Your task to perform on an android device: Open Yahoo.com Image 0: 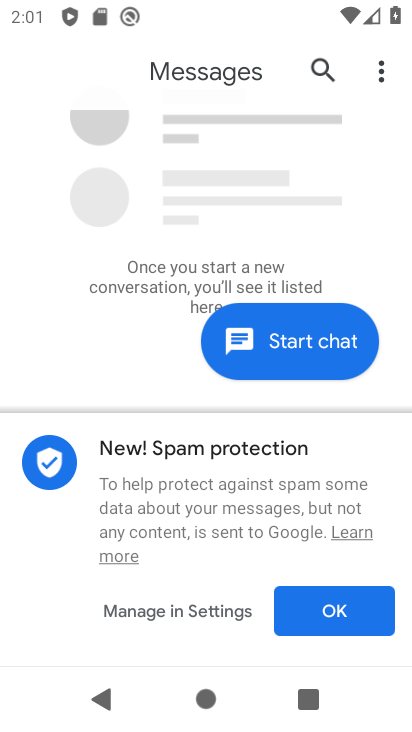
Step 0: press home button
Your task to perform on an android device: Open Yahoo.com Image 1: 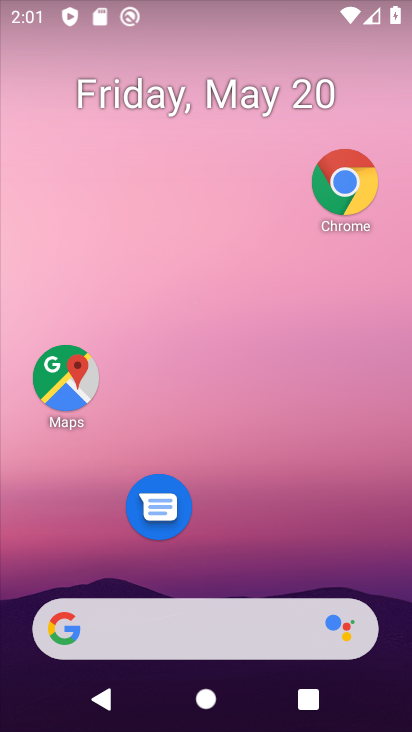
Step 1: click (340, 186)
Your task to perform on an android device: Open Yahoo.com Image 2: 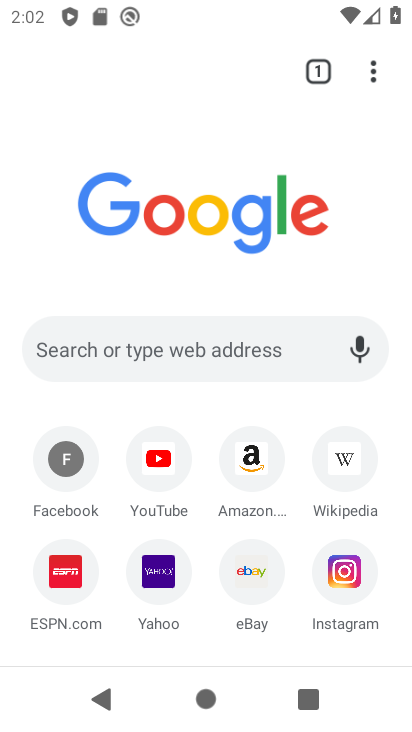
Step 2: click (169, 574)
Your task to perform on an android device: Open Yahoo.com Image 3: 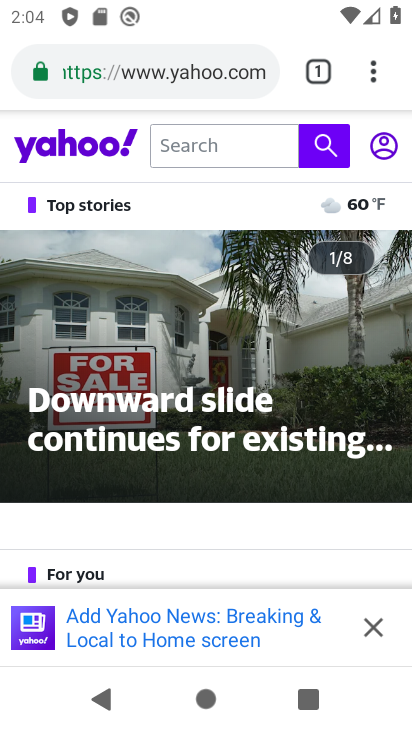
Step 3: task complete